Your task to perform on an android device: set default search engine in the chrome app Image 0: 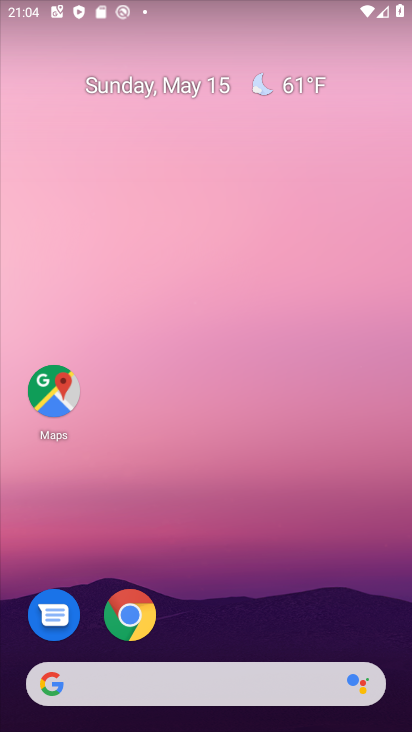
Step 0: drag from (326, 538) to (254, 0)
Your task to perform on an android device: set default search engine in the chrome app Image 1: 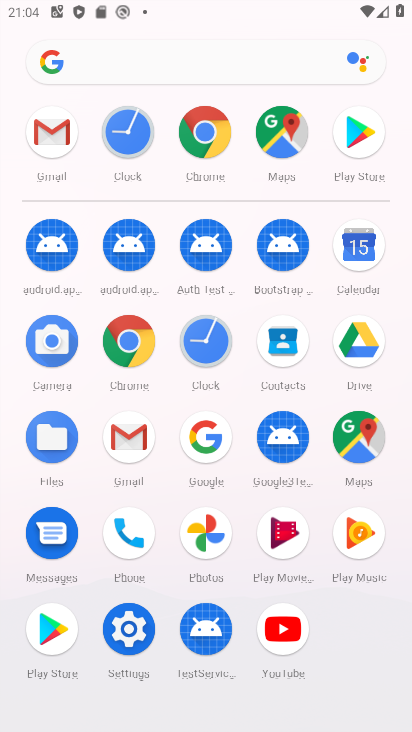
Step 1: click (125, 335)
Your task to perform on an android device: set default search engine in the chrome app Image 2: 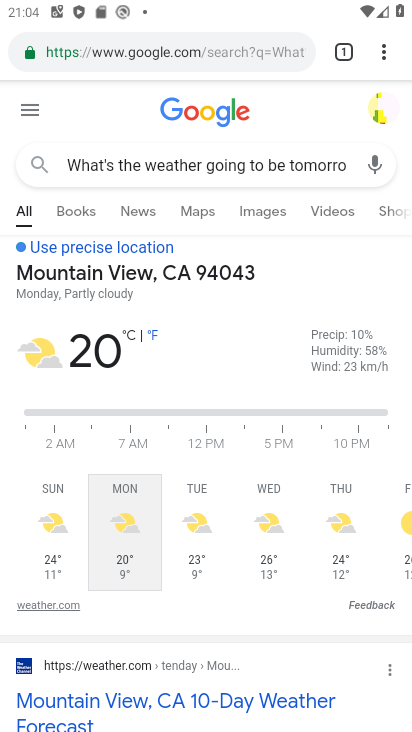
Step 2: drag from (379, 44) to (201, 574)
Your task to perform on an android device: set default search engine in the chrome app Image 3: 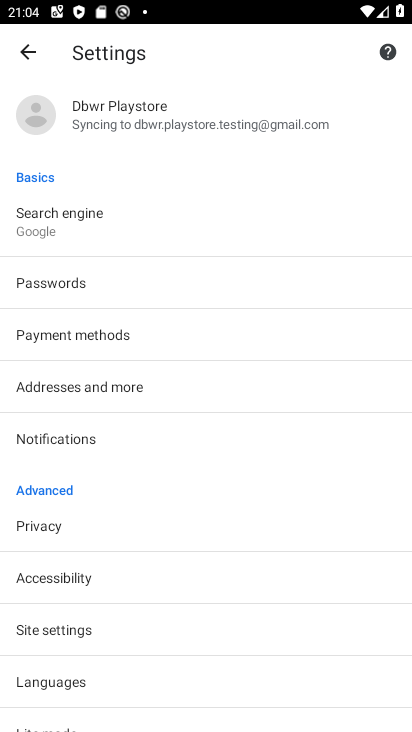
Step 3: drag from (239, 562) to (257, 206)
Your task to perform on an android device: set default search engine in the chrome app Image 4: 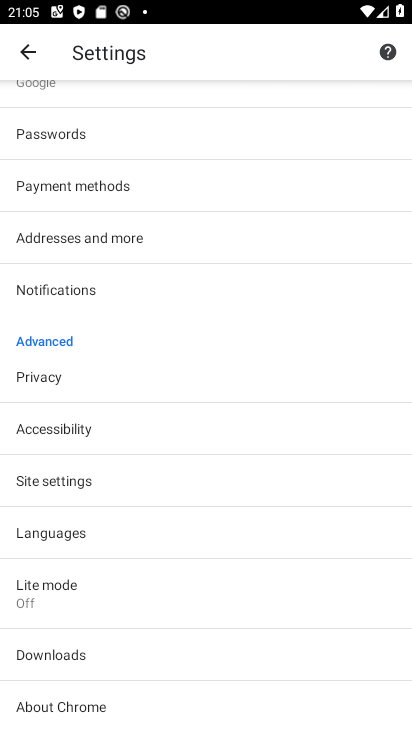
Step 4: drag from (168, 143) to (160, 303)
Your task to perform on an android device: set default search engine in the chrome app Image 5: 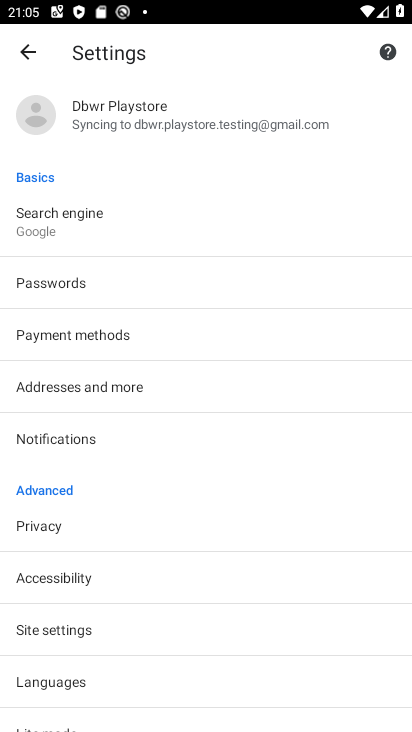
Step 5: click (125, 206)
Your task to perform on an android device: set default search engine in the chrome app Image 6: 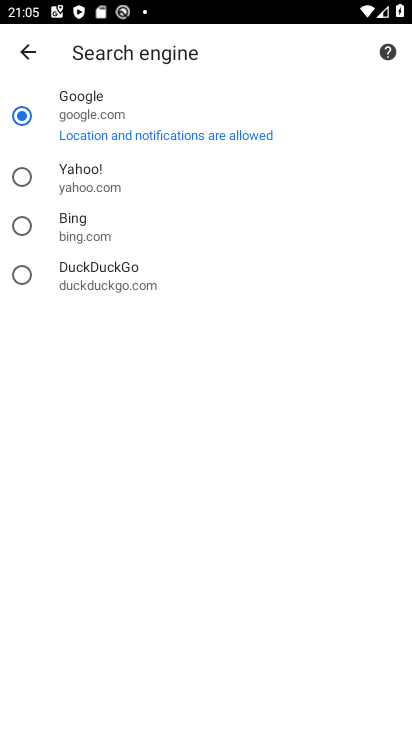
Step 6: click (108, 174)
Your task to perform on an android device: set default search engine in the chrome app Image 7: 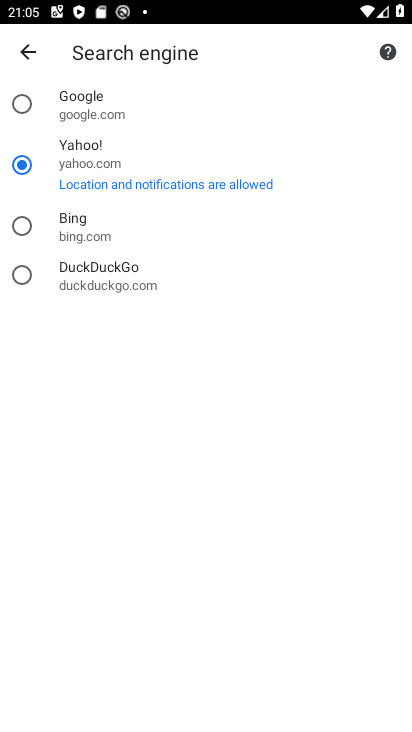
Step 7: task complete